Your task to perform on an android device: create a new album in the google photos Image 0: 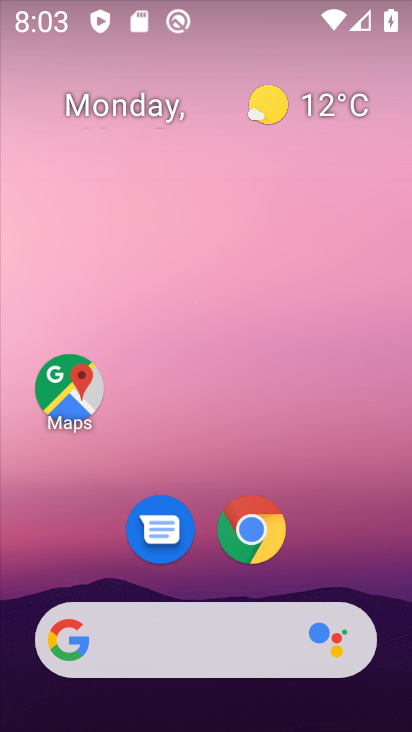
Step 0: click (151, 158)
Your task to perform on an android device: create a new album in the google photos Image 1: 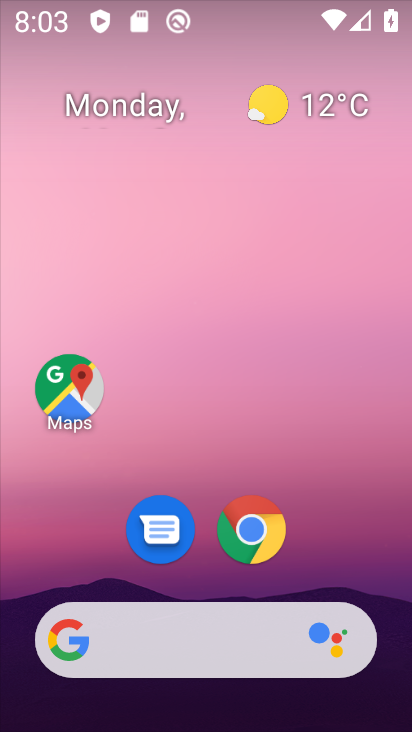
Step 1: drag from (217, 611) to (189, 91)
Your task to perform on an android device: create a new album in the google photos Image 2: 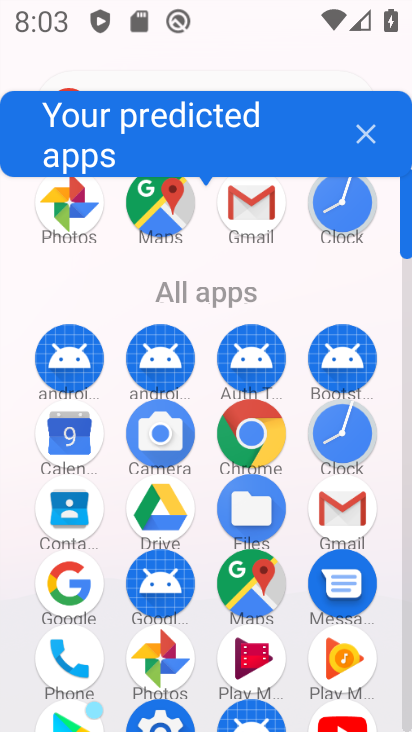
Step 2: click (175, 665)
Your task to perform on an android device: create a new album in the google photos Image 3: 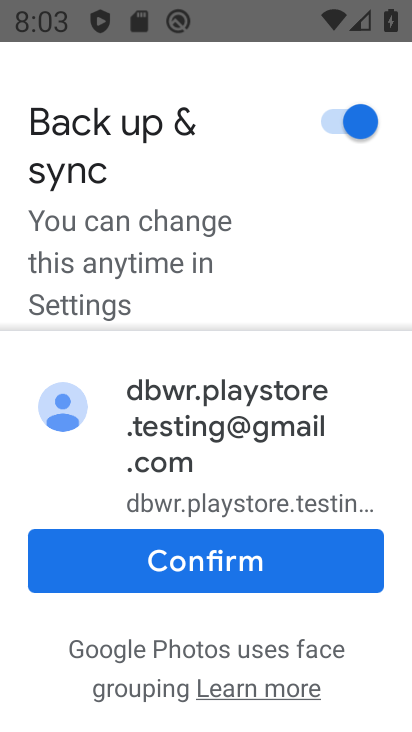
Step 3: click (238, 597)
Your task to perform on an android device: create a new album in the google photos Image 4: 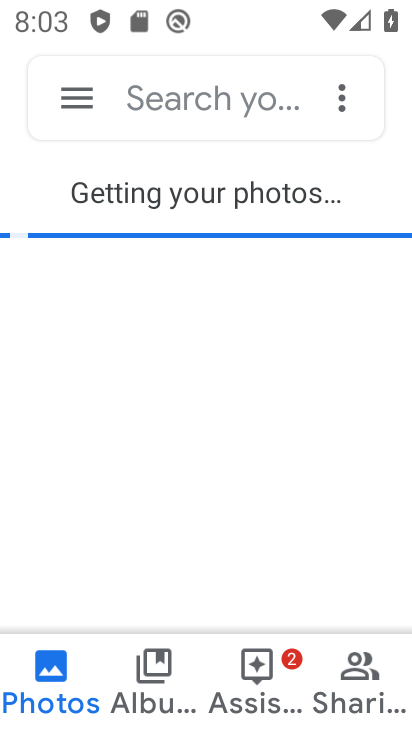
Step 4: click (253, 683)
Your task to perform on an android device: create a new album in the google photos Image 5: 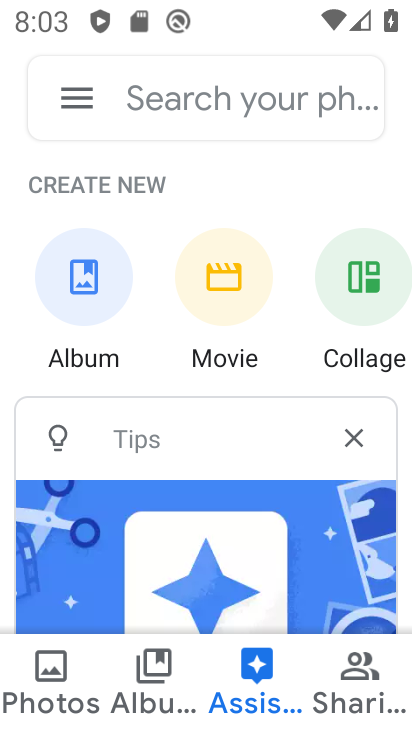
Step 5: click (96, 280)
Your task to perform on an android device: create a new album in the google photos Image 6: 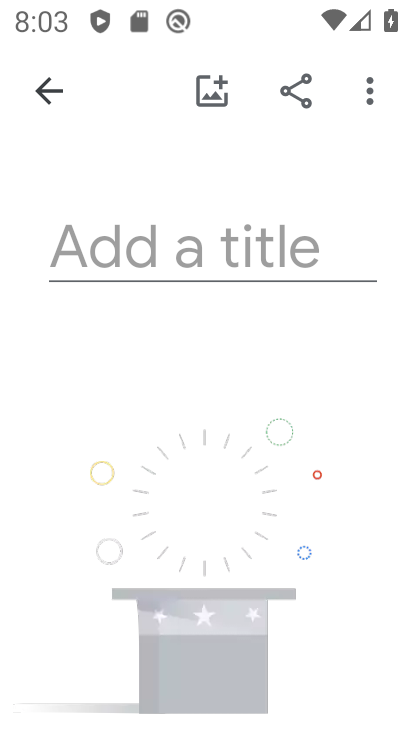
Step 6: click (163, 247)
Your task to perform on an android device: create a new album in the google photos Image 7: 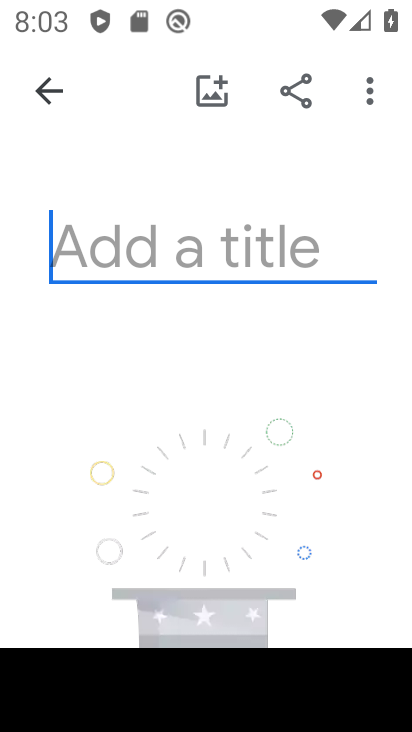
Step 7: type "cad"
Your task to perform on an android device: create a new album in the google photos Image 8: 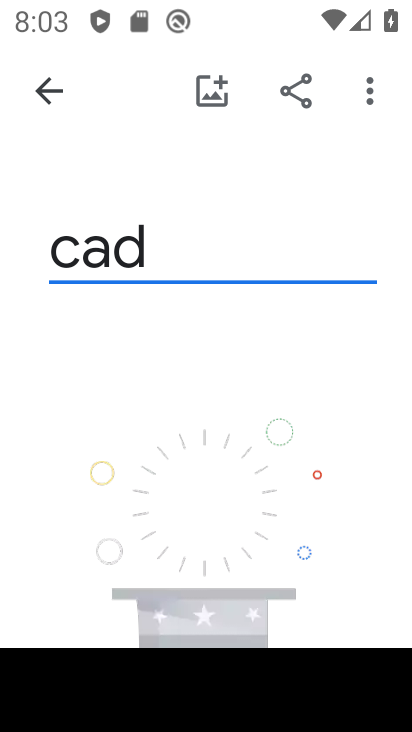
Step 8: drag from (213, 553) to (222, 172)
Your task to perform on an android device: create a new album in the google photos Image 9: 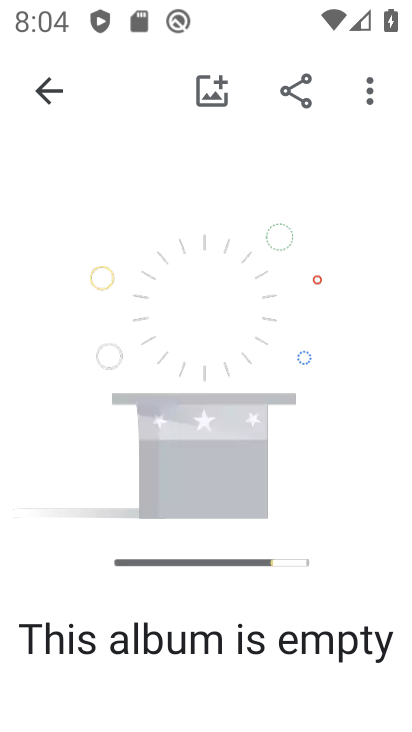
Step 9: drag from (211, 687) to (158, 205)
Your task to perform on an android device: create a new album in the google photos Image 10: 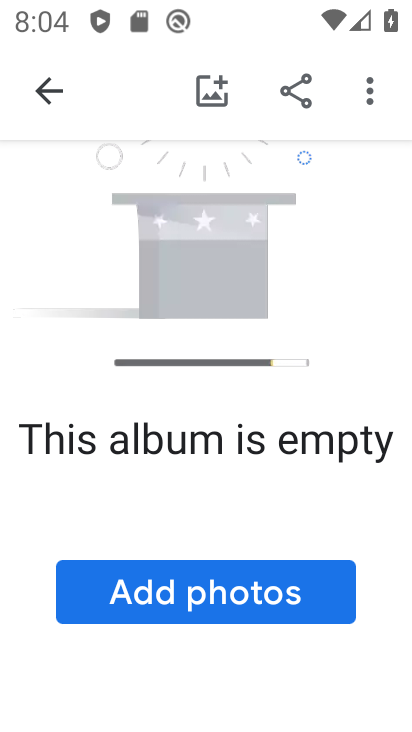
Step 10: click (242, 564)
Your task to perform on an android device: create a new album in the google photos Image 11: 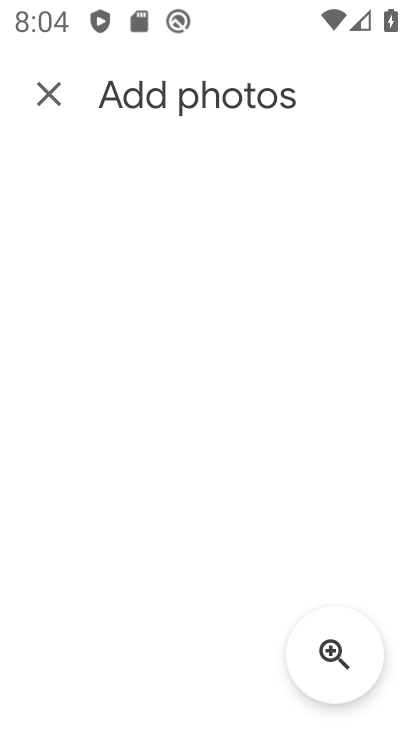
Step 11: drag from (208, 598) to (232, 157)
Your task to perform on an android device: create a new album in the google photos Image 12: 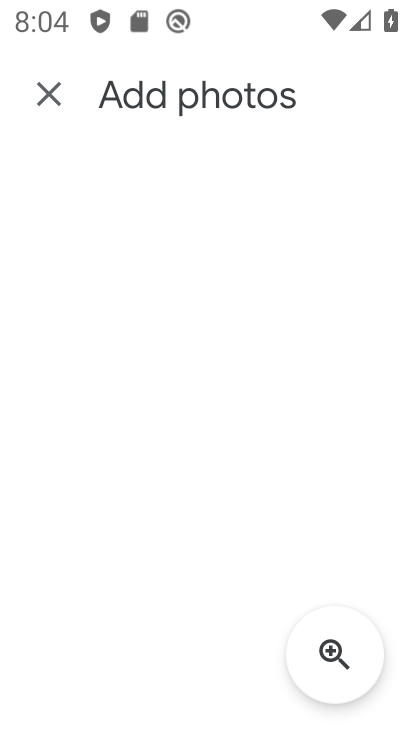
Step 12: click (335, 659)
Your task to perform on an android device: create a new album in the google photos Image 13: 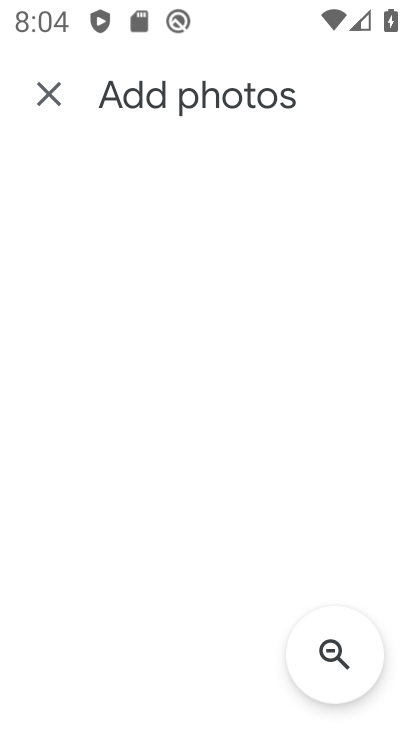
Step 13: click (330, 666)
Your task to perform on an android device: create a new album in the google photos Image 14: 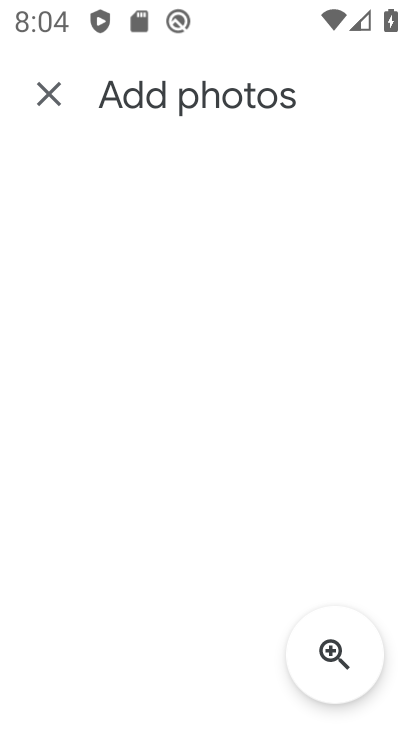
Step 14: task complete